Your task to perform on an android device: add a contact in the contacts app Image 0: 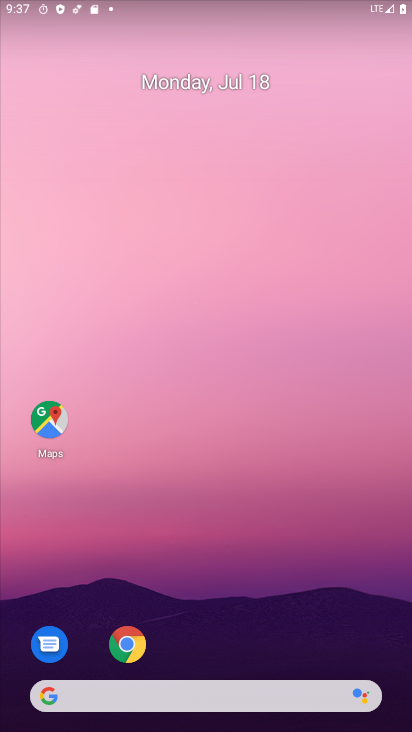
Step 0: drag from (219, 662) to (234, 15)
Your task to perform on an android device: add a contact in the contacts app Image 1: 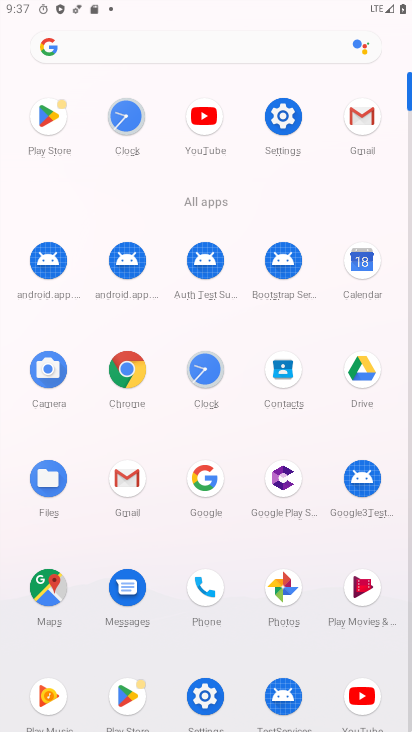
Step 1: click (283, 363)
Your task to perform on an android device: add a contact in the contacts app Image 2: 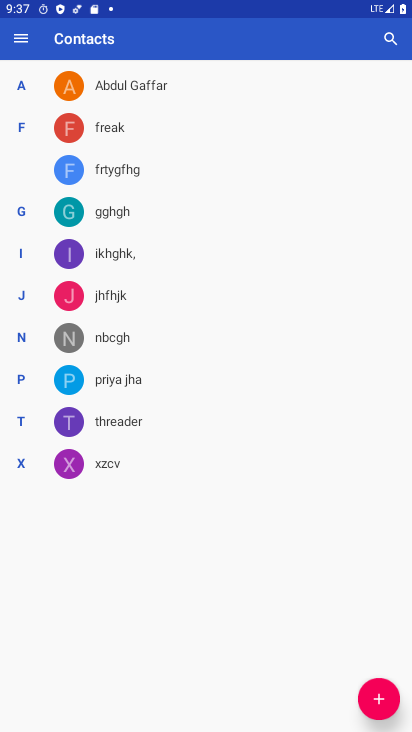
Step 2: click (375, 695)
Your task to perform on an android device: add a contact in the contacts app Image 3: 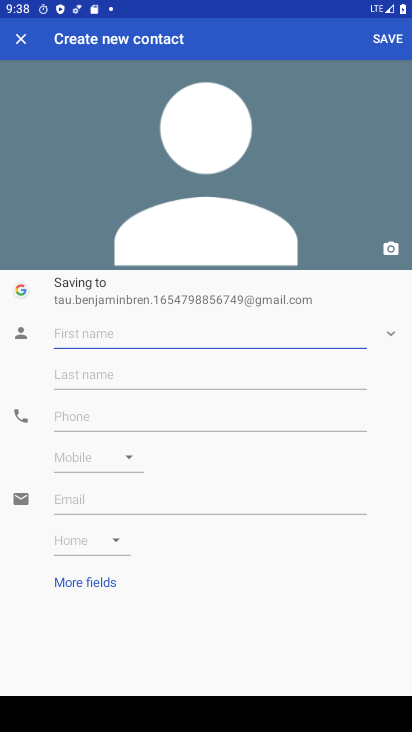
Step 3: type "aprnkt"
Your task to perform on an android device: add a contact in the contacts app Image 4: 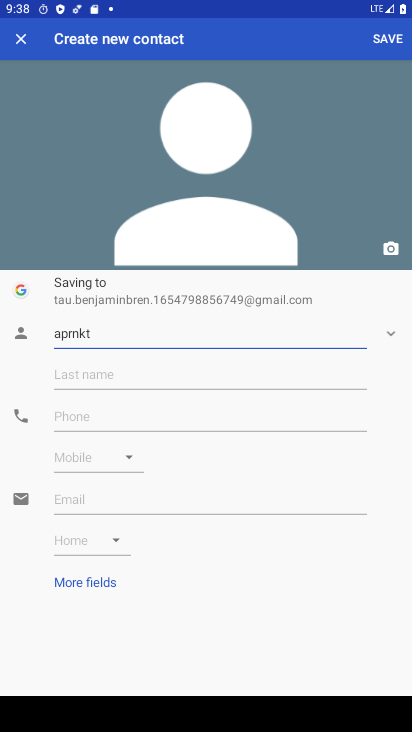
Step 4: click (391, 37)
Your task to perform on an android device: add a contact in the contacts app Image 5: 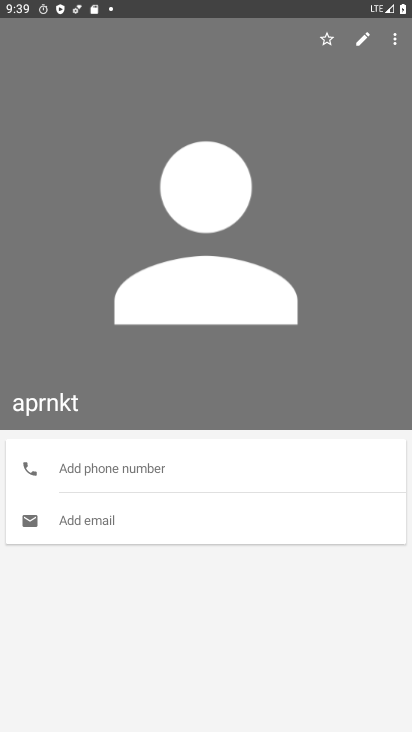
Step 5: task complete